Your task to perform on an android device: Open sound settings Image 0: 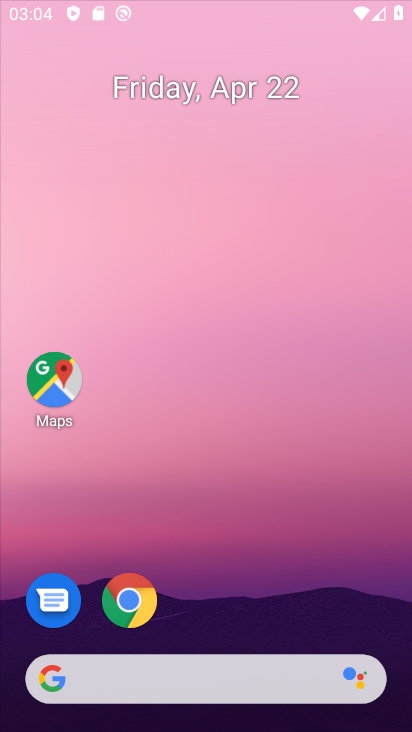
Step 0: click (195, 166)
Your task to perform on an android device: Open sound settings Image 1: 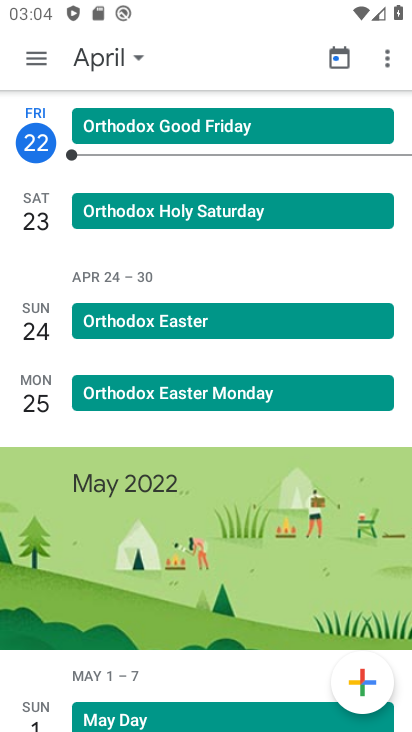
Step 1: press home button
Your task to perform on an android device: Open sound settings Image 2: 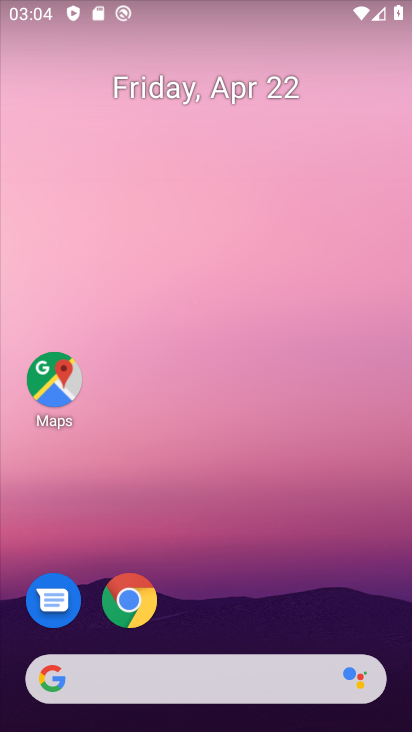
Step 2: drag from (247, 602) to (243, 219)
Your task to perform on an android device: Open sound settings Image 3: 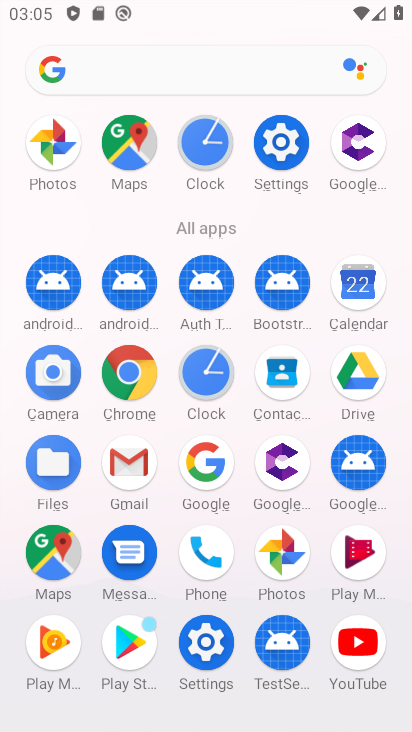
Step 3: click (293, 165)
Your task to perform on an android device: Open sound settings Image 4: 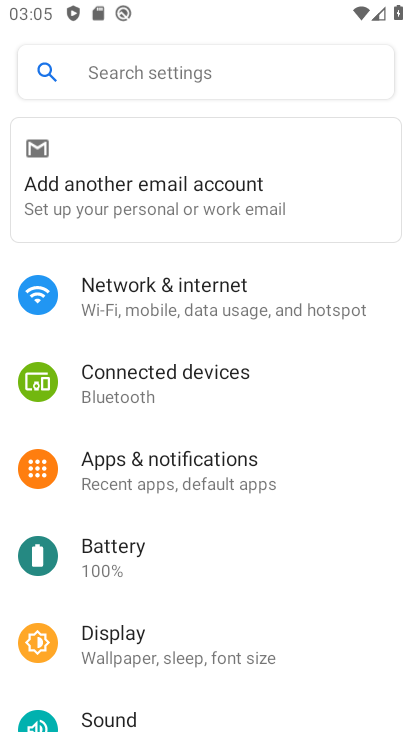
Step 4: click (114, 724)
Your task to perform on an android device: Open sound settings Image 5: 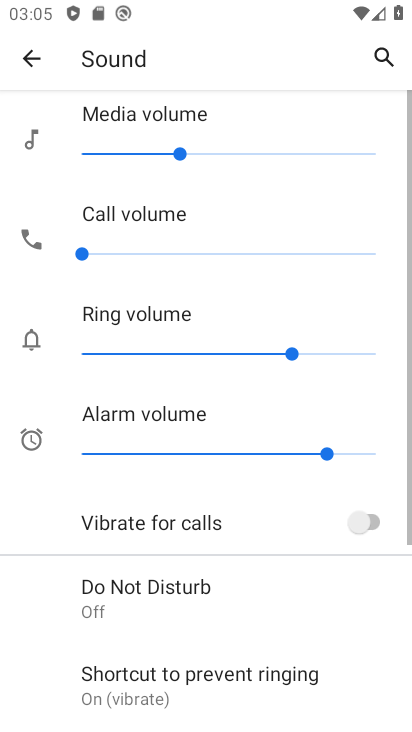
Step 5: task complete